Your task to perform on an android device: Open CNN.com Image 0: 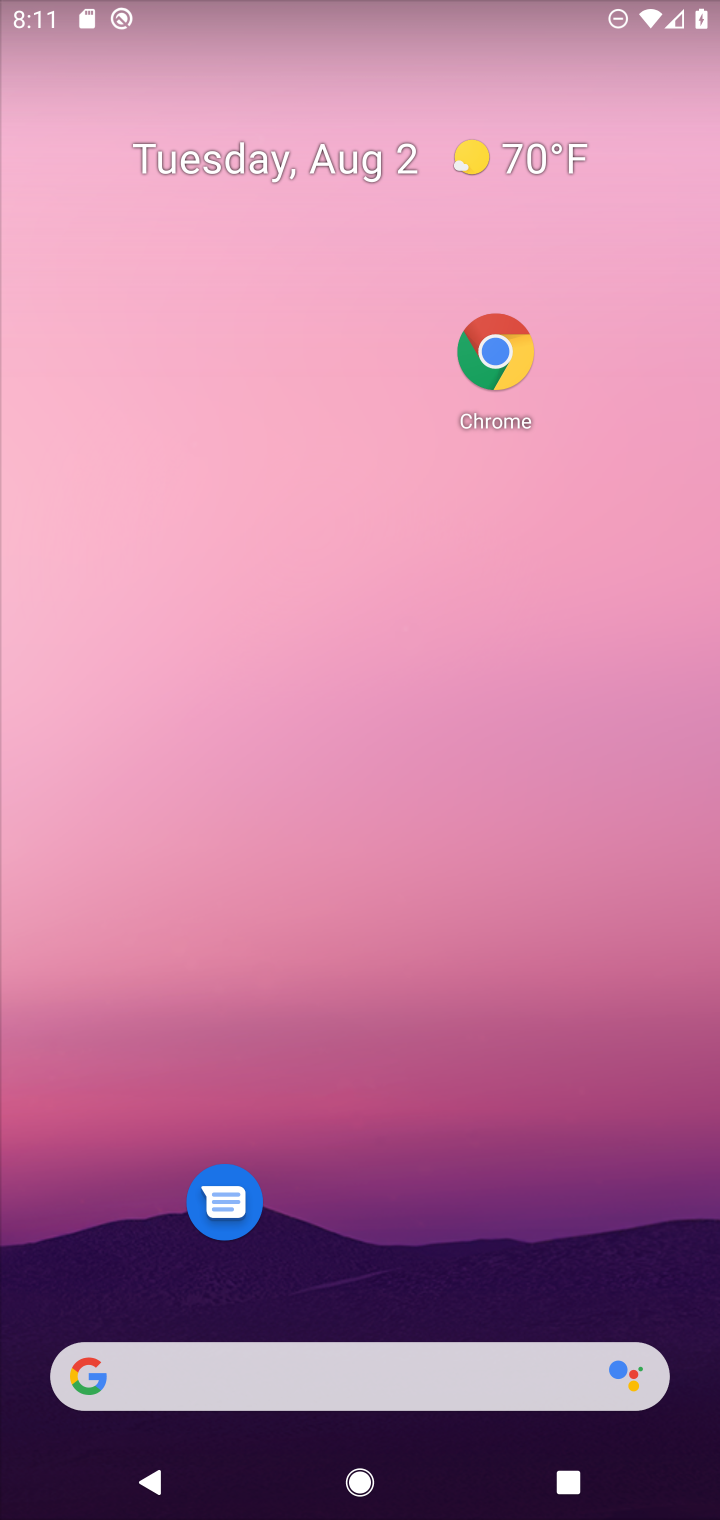
Step 0: press home button
Your task to perform on an android device: Open CNN.com Image 1: 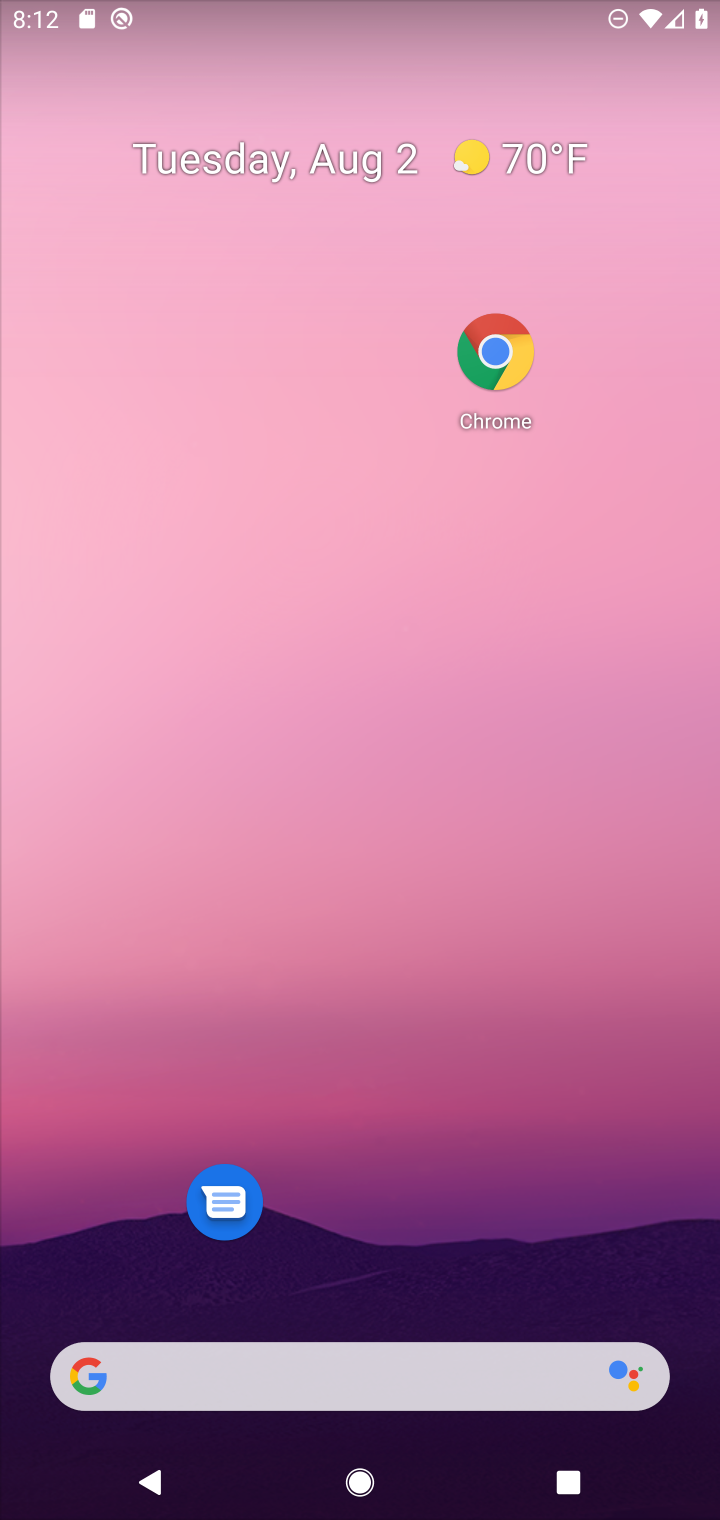
Step 1: click (501, 362)
Your task to perform on an android device: Open CNN.com Image 2: 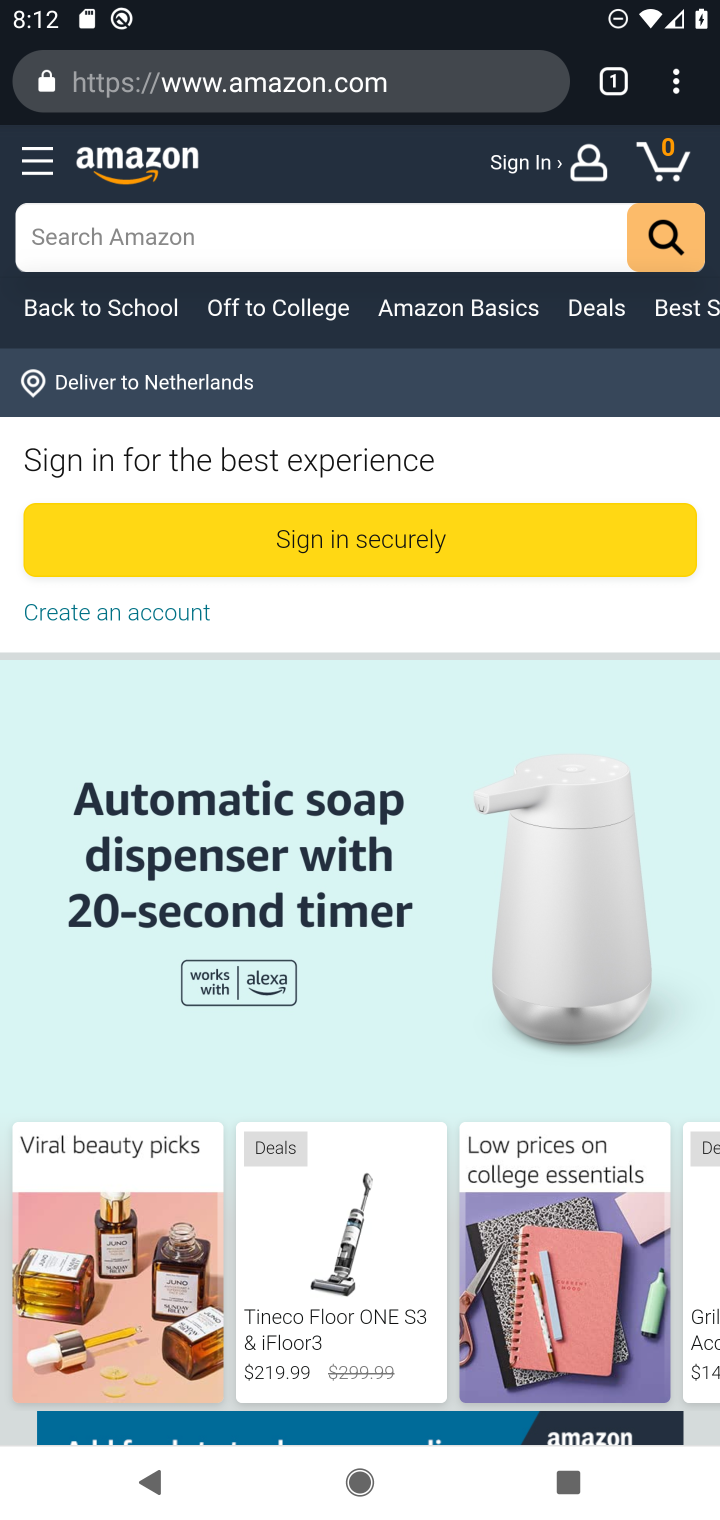
Step 2: click (420, 86)
Your task to perform on an android device: Open CNN.com Image 3: 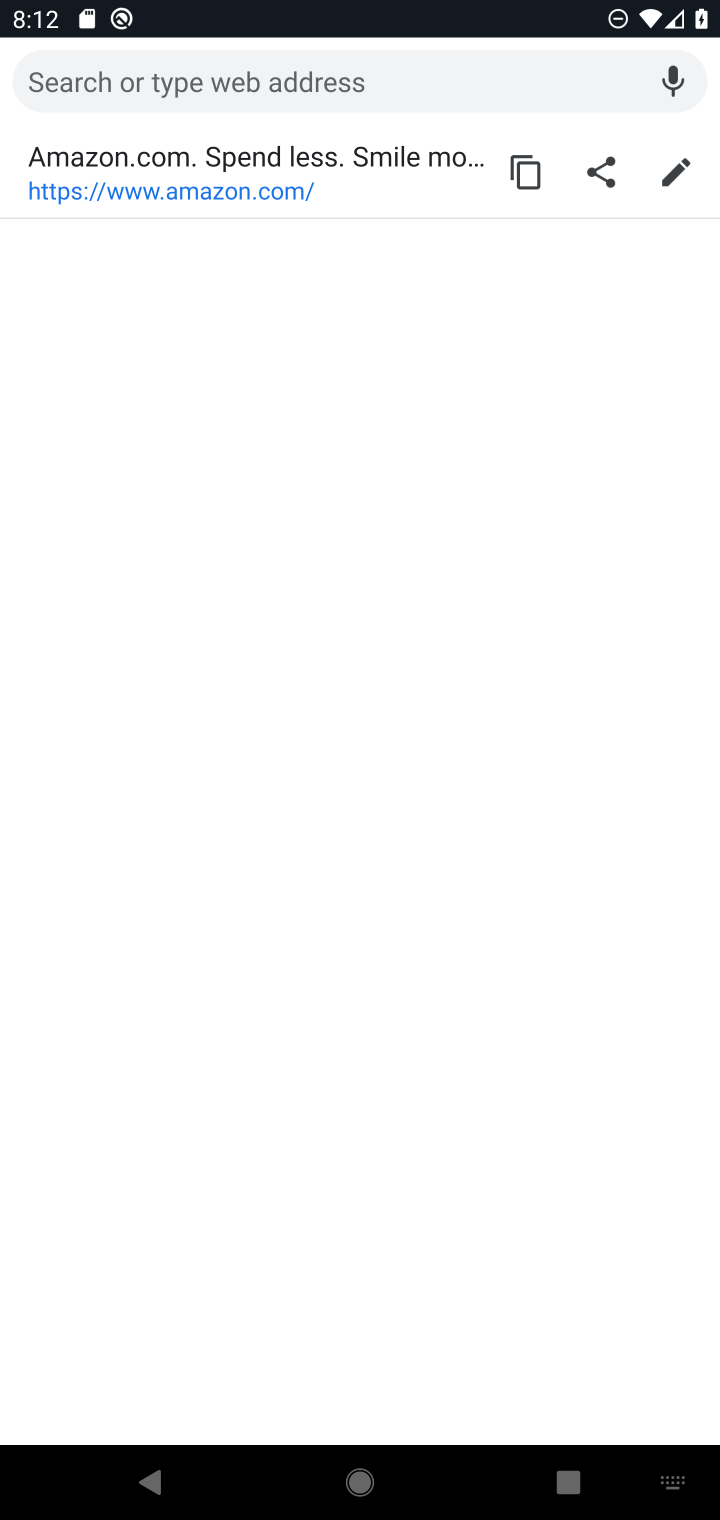
Step 3: type "cnn.com"
Your task to perform on an android device: Open CNN.com Image 4: 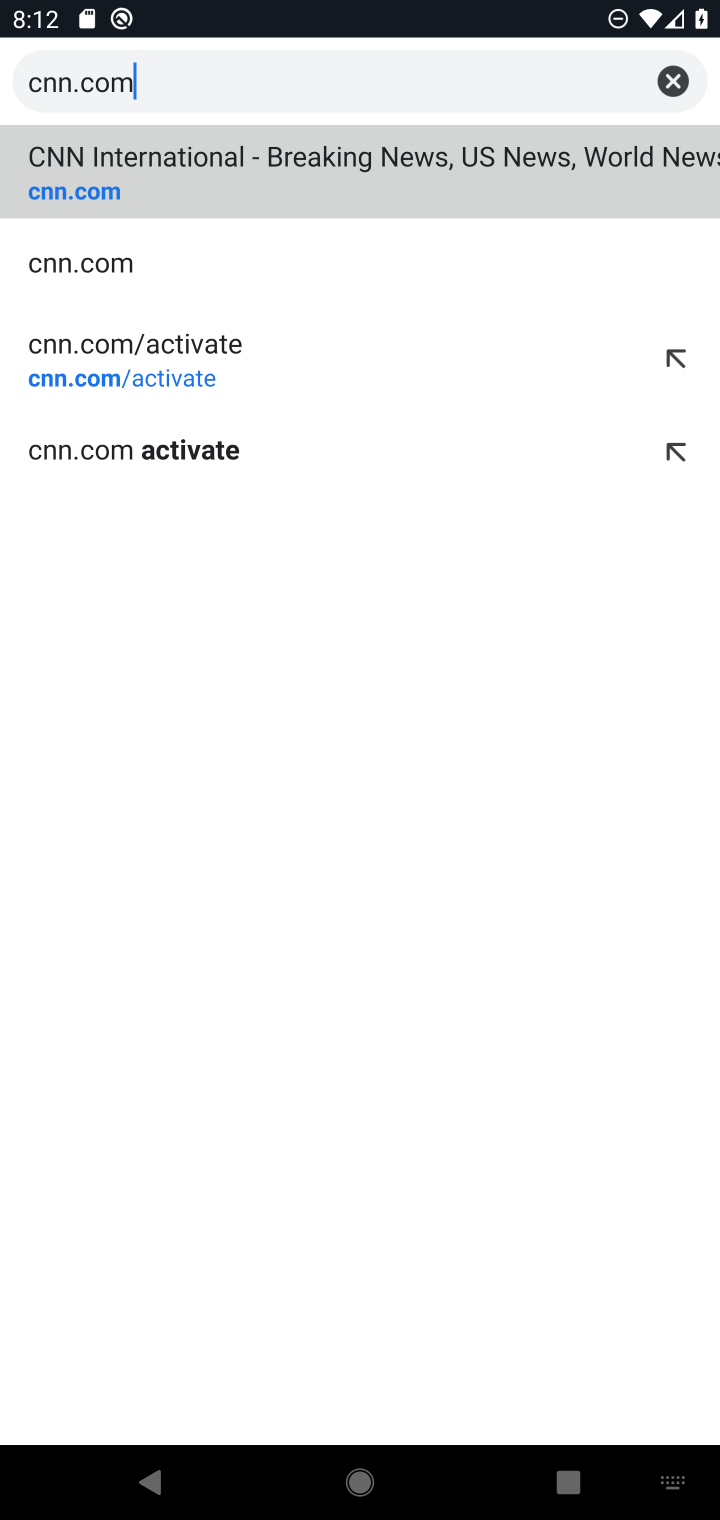
Step 4: click (71, 266)
Your task to perform on an android device: Open CNN.com Image 5: 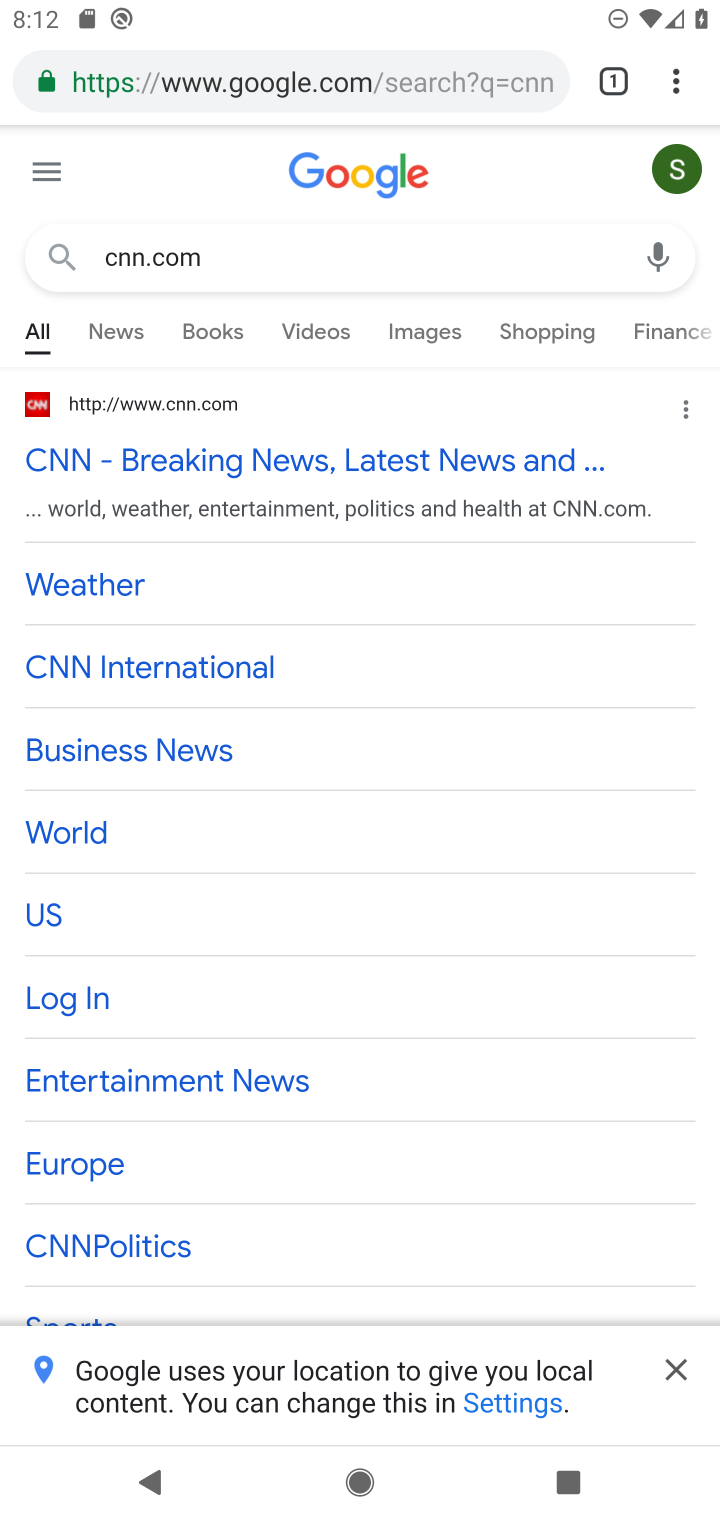
Step 5: click (127, 473)
Your task to perform on an android device: Open CNN.com Image 6: 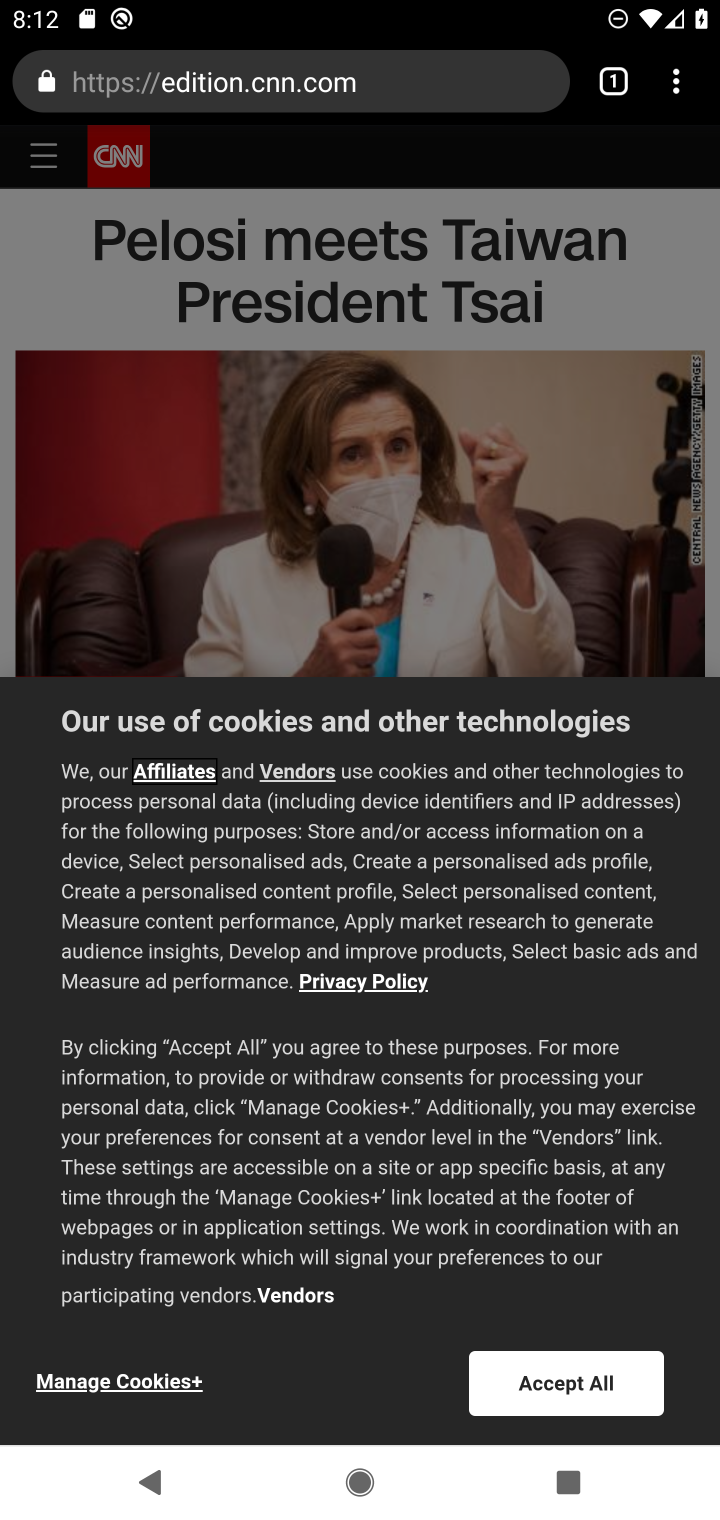
Step 6: task complete